Your task to perform on an android device: turn pop-ups on in chrome Image 0: 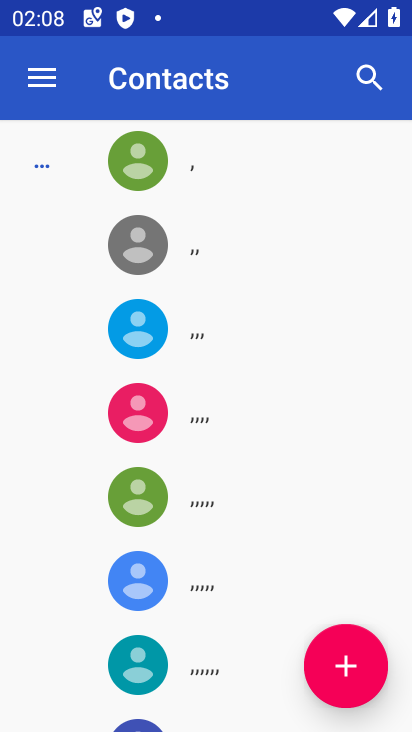
Step 0: press home button
Your task to perform on an android device: turn pop-ups on in chrome Image 1: 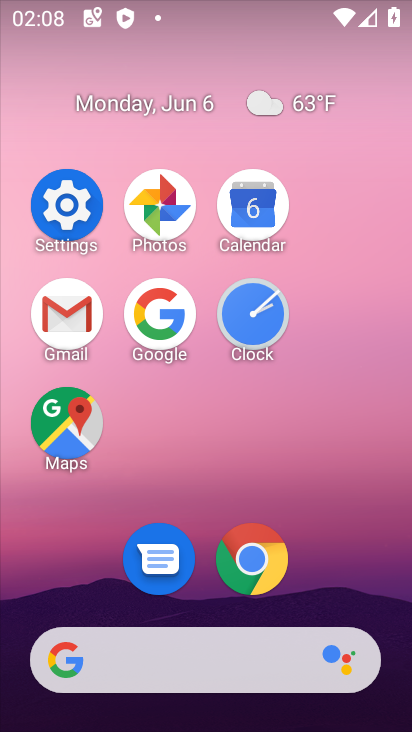
Step 1: click (229, 549)
Your task to perform on an android device: turn pop-ups on in chrome Image 2: 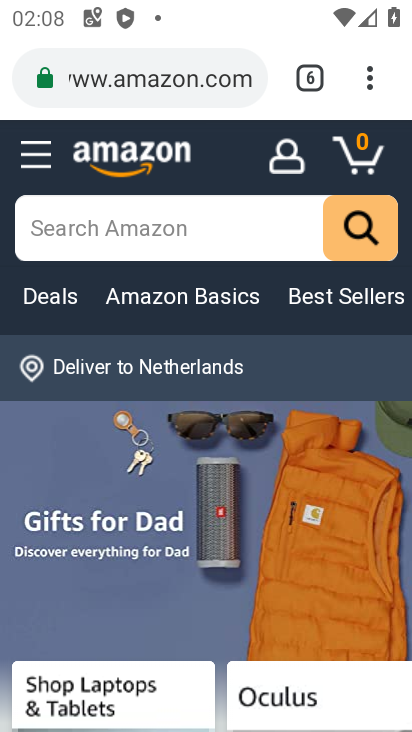
Step 2: click (366, 78)
Your task to perform on an android device: turn pop-ups on in chrome Image 3: 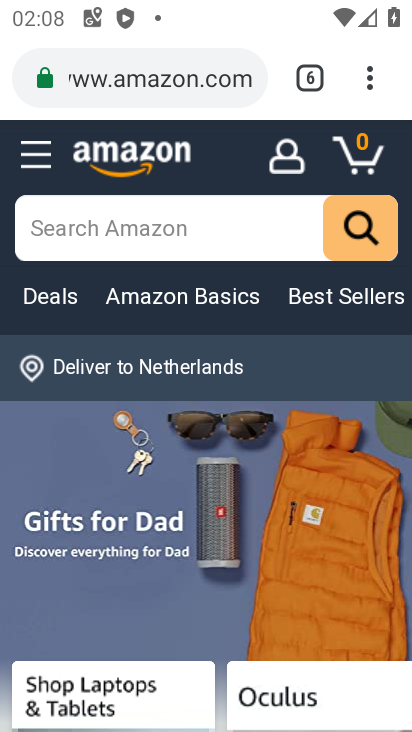
Step 3: click (373, 76)
Your task to perform on an android device: turn pop-ups on in chrome Image 4: 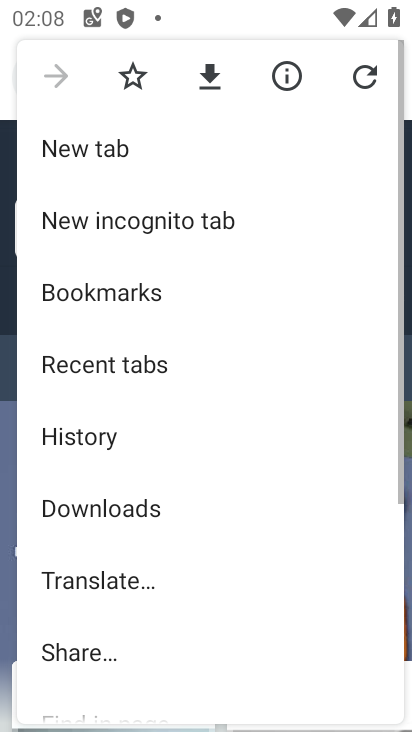
Step 4: drag from (209, 584) to (250, 108)
Your task to perform on an android device: turn pop-ups on in chrome Image 5: 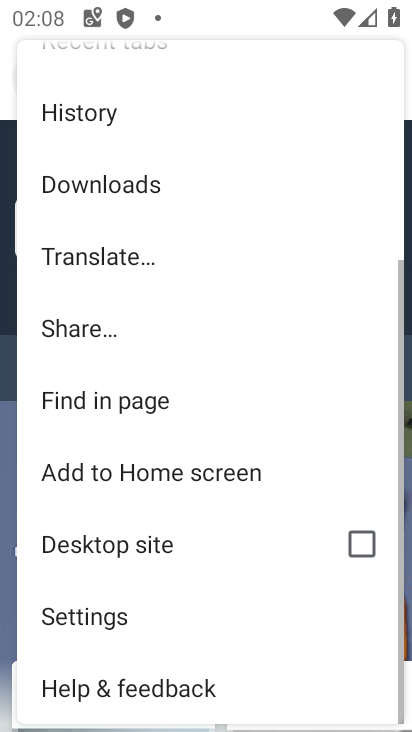
Step 5: click (87, 617)
Your task to perform on an android device: turn pop-ups on in chrome Image 6: 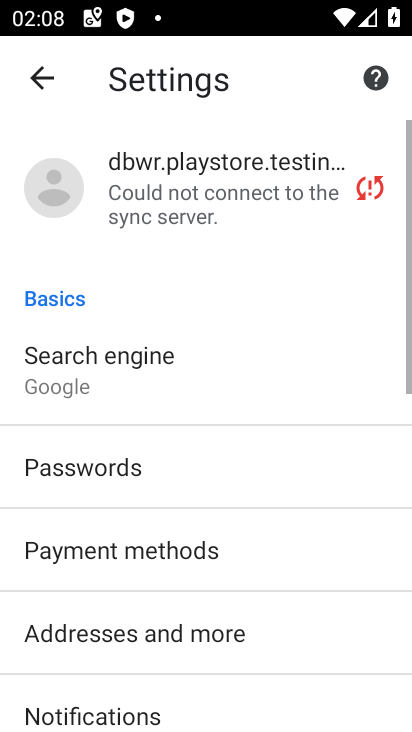
Step 6: drag from (85, 600) to (135, 181)
Your task to perform on an android device: turn pop-ups on in chrome Image 7: 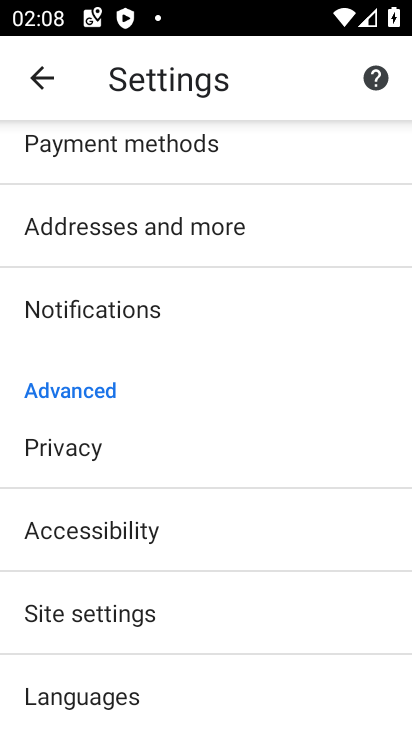
Step 7: click (72, 603)
Your task to perform on an android device: turn pop-ups on in chrome Image 8: 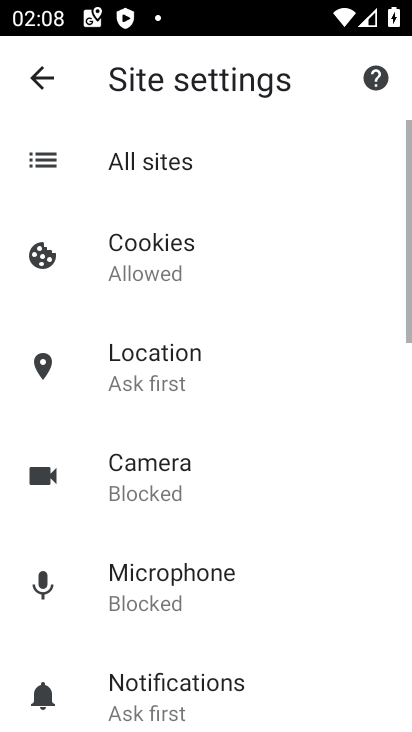
Step 8: drag from (72, 603) to (158, 166)
Your task to perform on an android device: turn pop-ups on in chrome Image 9: 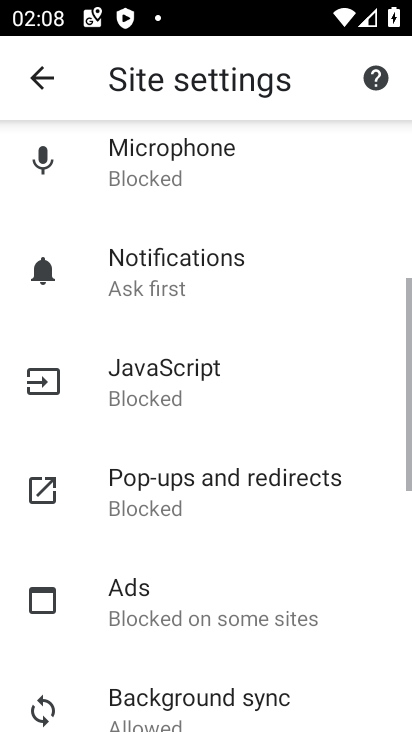
Step 9: click (138, 509)
Your task to perform on an android device: turn pop-ups on in chrome Image 10: 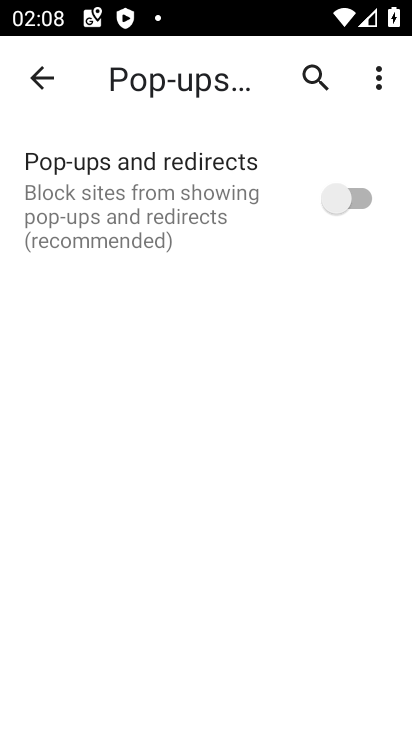
Step 10: click (349, 196)
Your task to perform on an android device: turn pop-ups on in chrome Image 11: 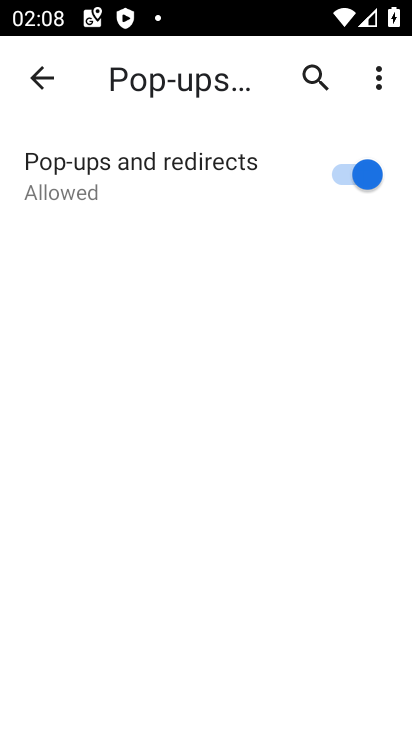
Step 11: task complete